Your task to perform on an android device: remove spam from my inbox in the gmail app Image 0: 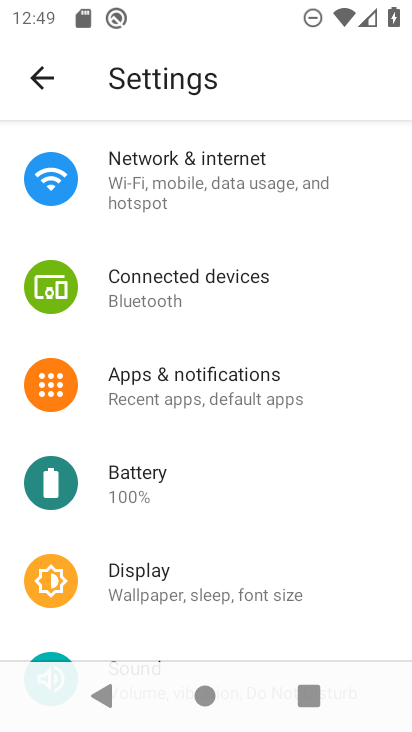
Step 0: press home button
Your task to perform on an android device: remove spam from my inbox in the gmail app Image 1: 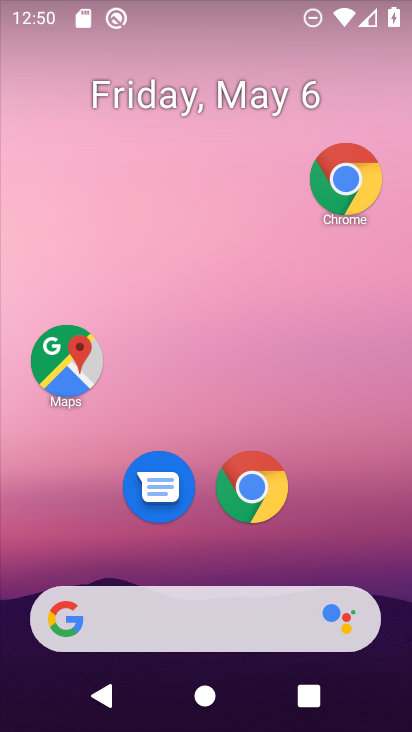
Step 1: drag from (380, 522) to (212, 89)
Your task to perform on an android device: remove spam from my inbox in the gmail app Image 2: 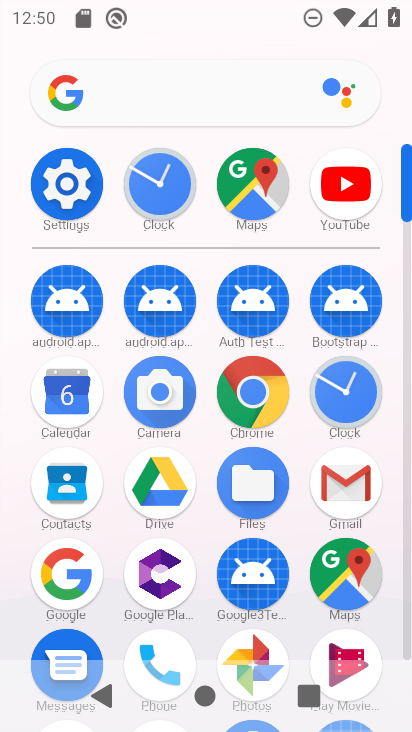
Step 2: click (408, 631)
Your task to perform on an android device: remove spam from my inbox in the gmail app Image 3: 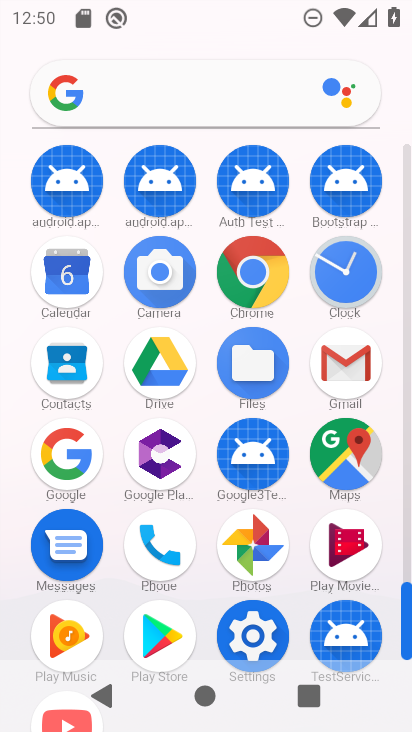
Step 3: click (327, 386)
Your task to perform on an android device: remove spam from my inbox in the gmail app Image 4: 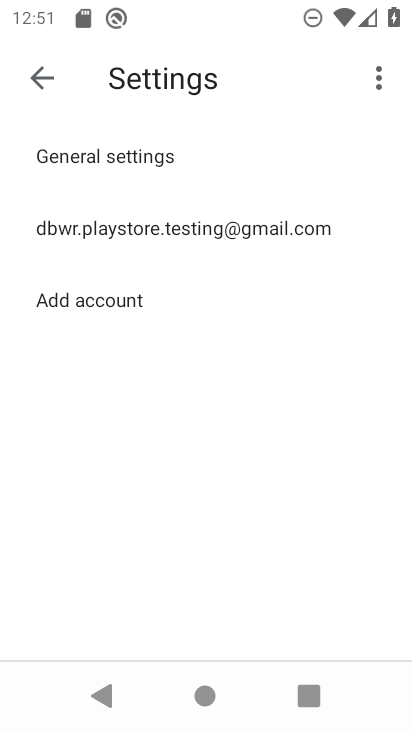
Step 4: click (59, 90)
Your task to perform on an android device: remove spam from my inbox in the gmail app Image 5: 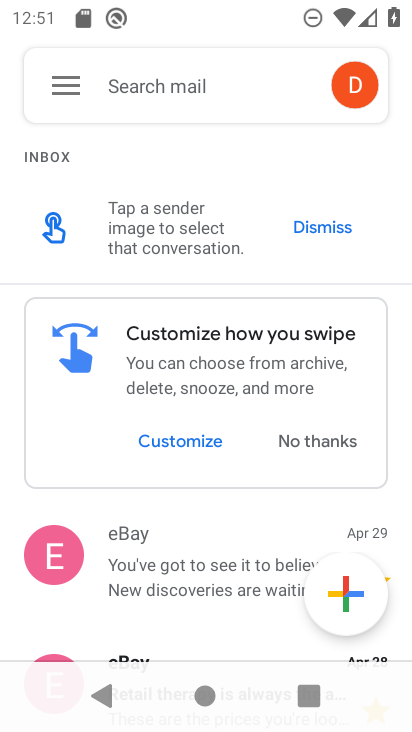
Step 5: click (61, 68)
Your task to perform on an android device: remove spam from my inbox in the gmail app Image 6: 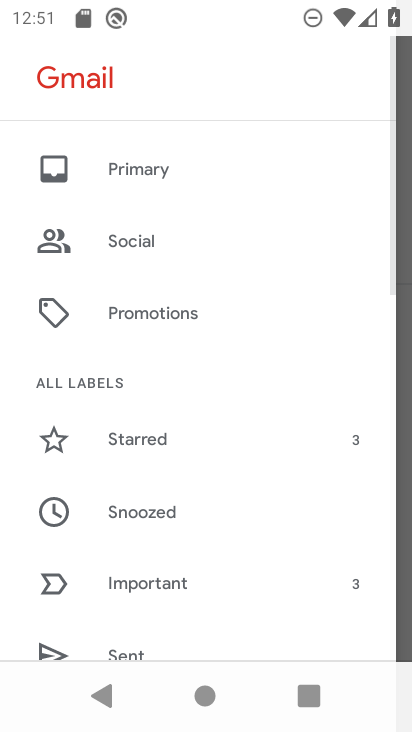
Step 6: drag from (149, 573) to (145, 346)
Your task to perform on an android device: remove spam from my inbox in the gmail app Image 7: 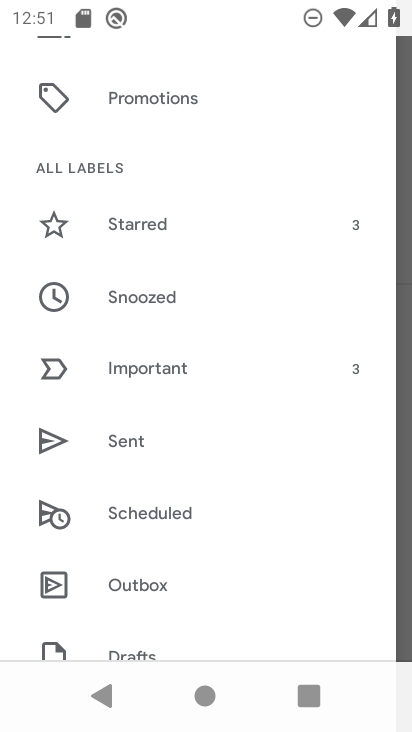
Step 7: drag from (152, 597) to (164, 434)
Your task to perform on an android device: remove spam from my inbox in the gmail app Image 8: 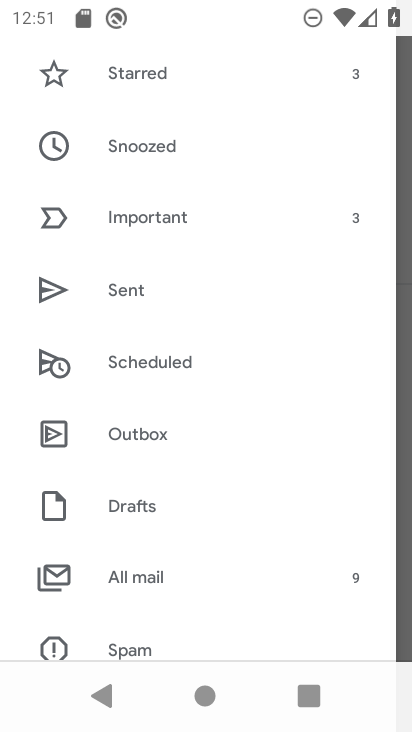
Step 8: click (162, 617)
Your task to perform on an android device: remove spam from my inbox in the gmail app Image 9: 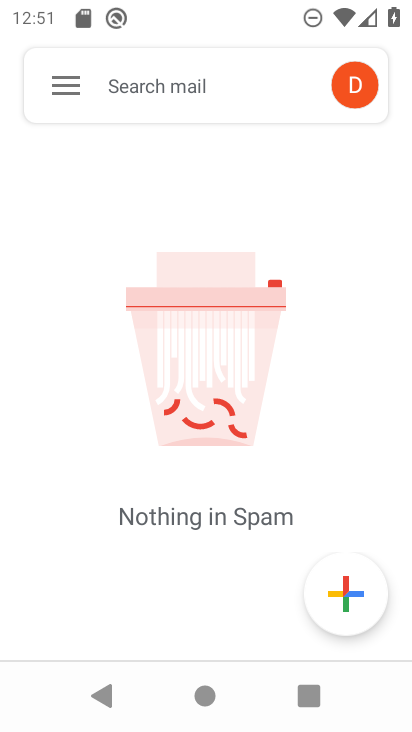
Step 9: task complete